Your task to perform on an android device: change the clock display to show seconds Image 0: 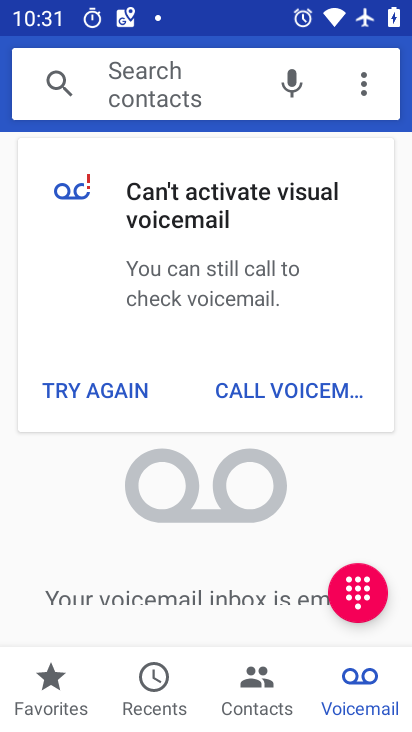
Step 0: press home button
Your task to perform on an android device: change the clock display to show seconds Image 1: 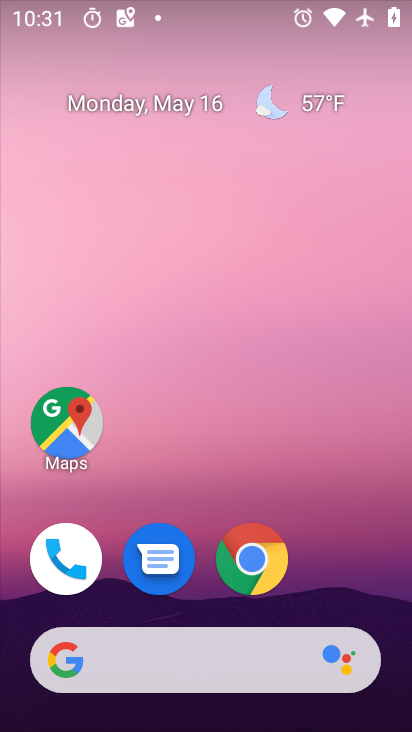
Step 1: drag from (355, 512) to (301, 110)
Your task to perform on an android device: change the clock display to show seconds Image 2: 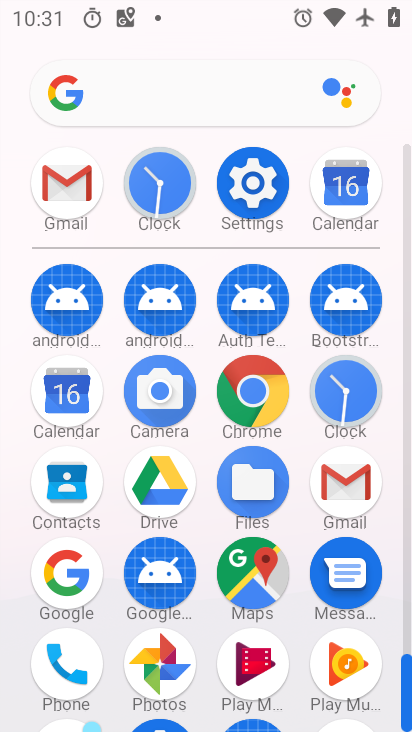
Step 2: click (346, 406)
Your task to perform on an android device: change the clock display to show seconds Image 3: 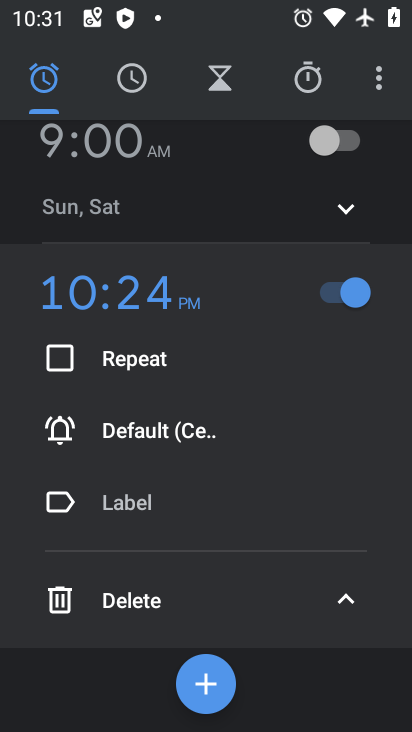
Step 3: click (369, 74)
Your task to perform on an android device: change the clock display to show seconds Image 4: 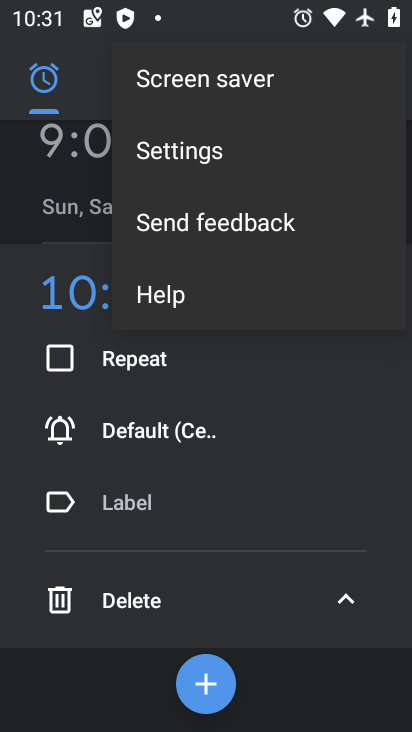
Step 4: click (182, 149)
Your task to perform on an android device: change the clock display to show seconds Image 5: 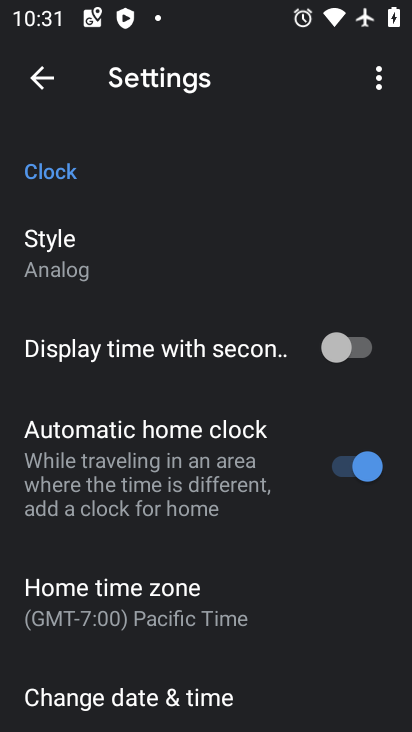
Step 5: click (350, 336)
Your task to perform on an android device: change the clock display to show seconds Image 6: 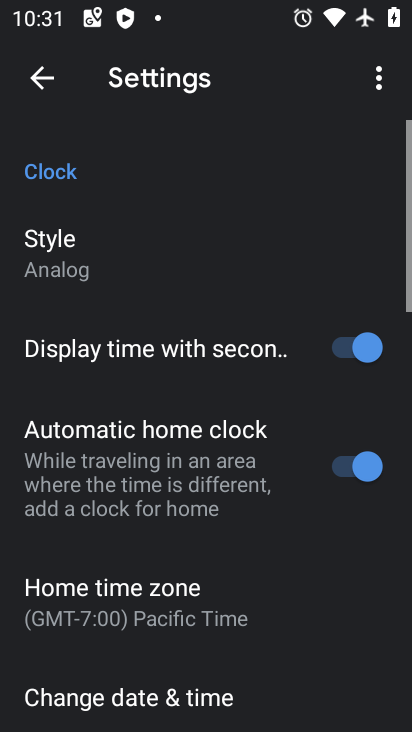
Step 6: task complete